Your task to perform on an android device: Open Yahoo.com Image 0: 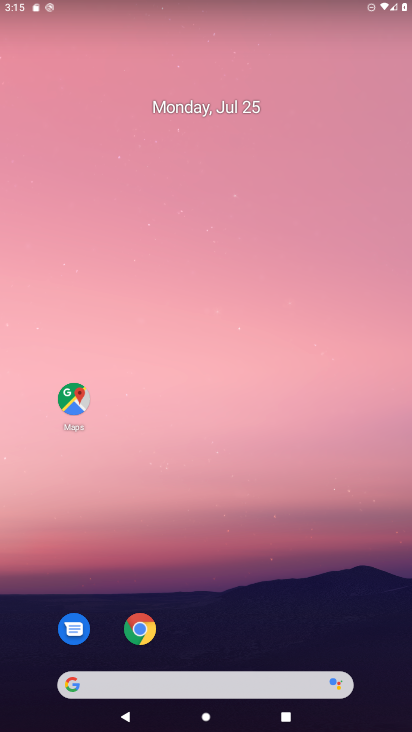
Step 0: click (140, 618)
Your task to perform on an android device: Open Yahoo.com Image 1: 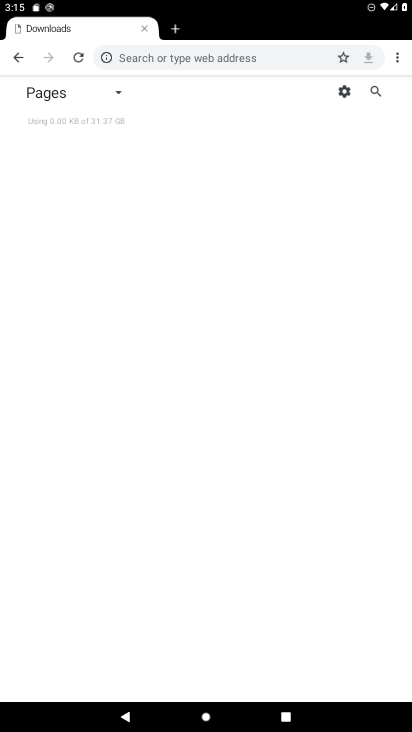
Step 1: click (155, 60)
Your task to perform on an android device: Open Yahoo.com Image 2: 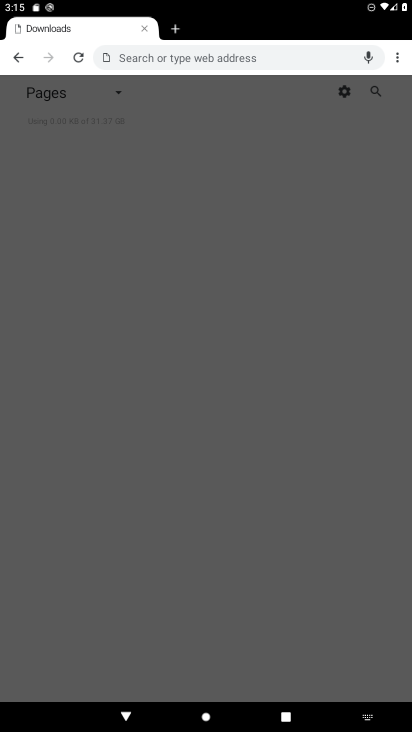
Step 2: type "yahoo.com"
Your task to perform on an android device: Open Yahoo.com Image 3: 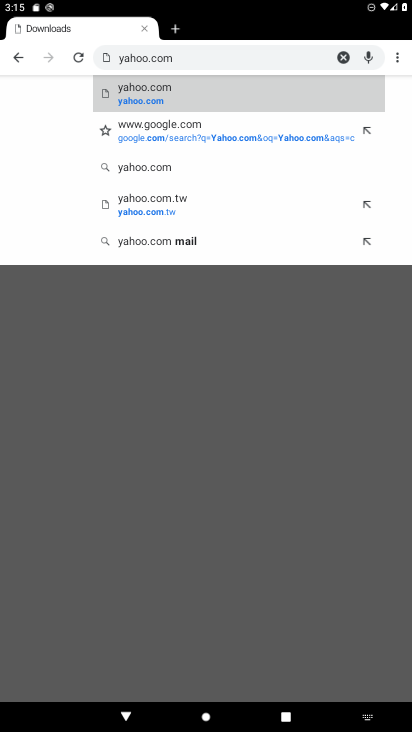
Step 3: click (196, 84)
Your task to perform on an android device: Open Yahoo.com Image 4: 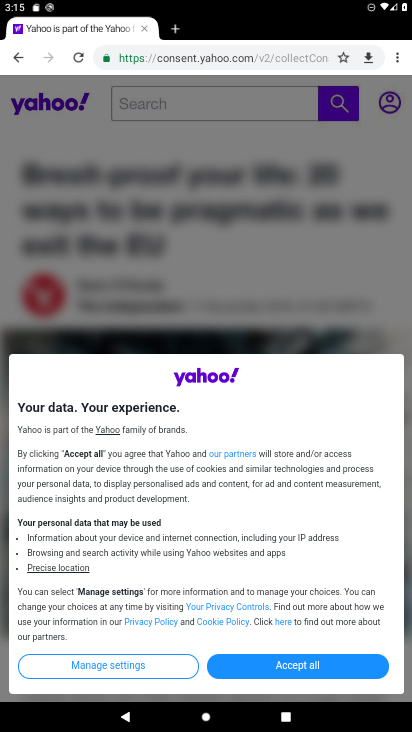
Step 4: task complete